Your task to perform on an android device: turn vacation reply on in the gmail app Image 0: 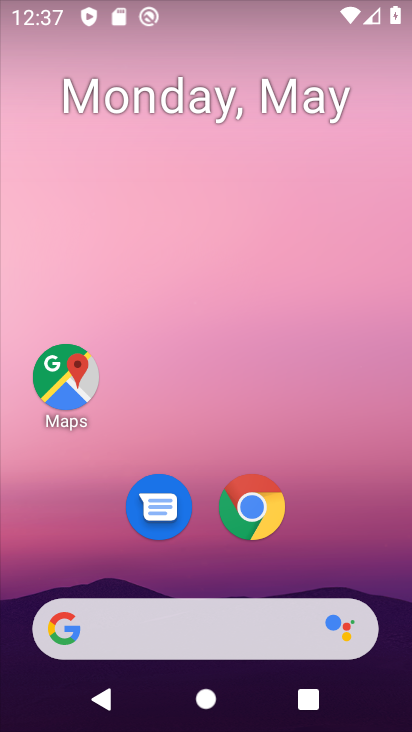
Step 0: drag from (247, 702) to (266, 22)
Your task to perform on an android device: turn vacation reply on in the gmail app Image 1: 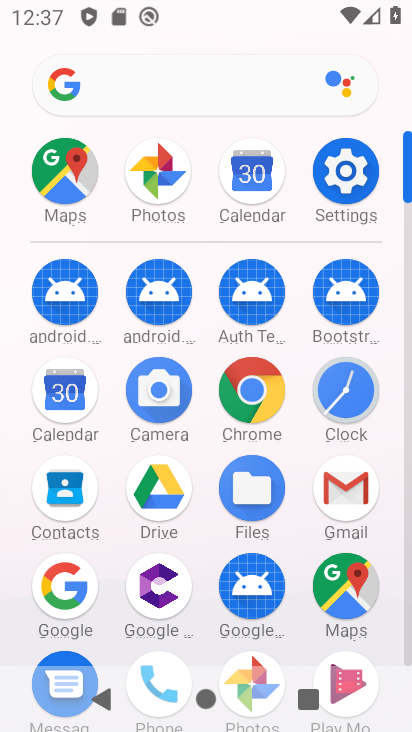
Step 1: click (347, 486)
Your task to perform on an android device: turn vacation reply on in the gmail app Image 2: 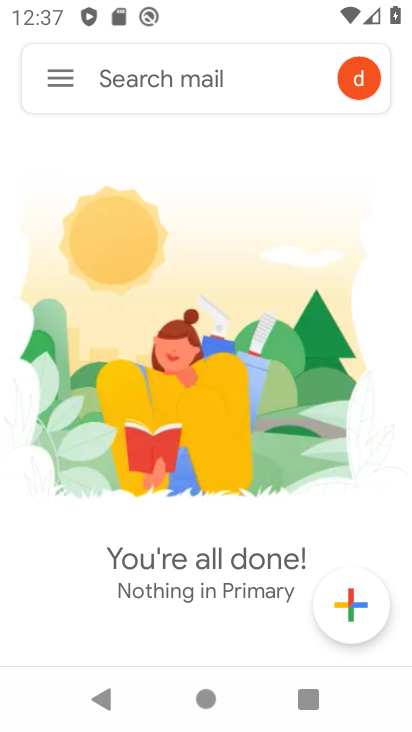
Step 2: click (60, 87)
Your task to perform on an android device: turn vacation reply on in the gmail app Image 3: 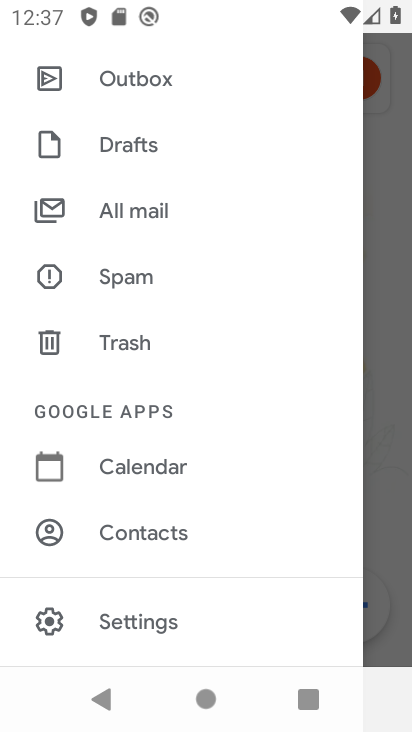
Step 3: click (148, 613)
Your task to perform on an android device: turn vacation reply on in the gmail app Image 4: 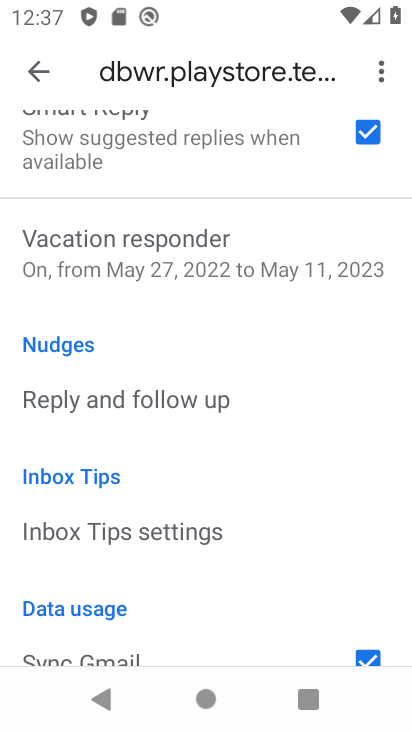
Step 4: task complete